Your task to perform on an android device: turn off improve location accuracy Image 0: 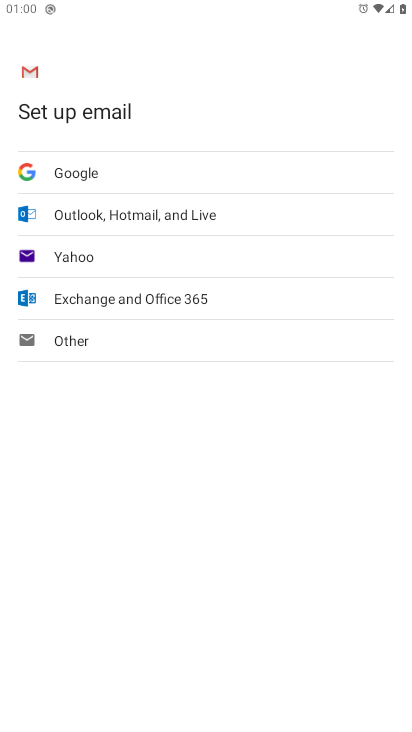
Step 0: press home button
Your task to perform on an android device: turn off improve location accuracy Image 1: 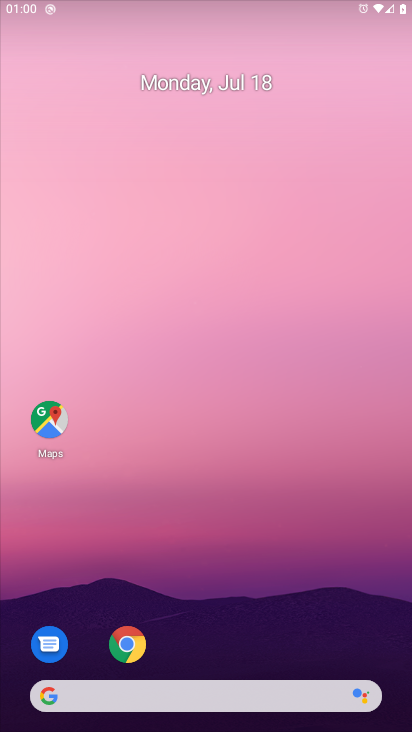
Step 1: drag from (304, 618) to (320, 124)
Your task to perform on an android device: turn off improve location accuracy Image 2: 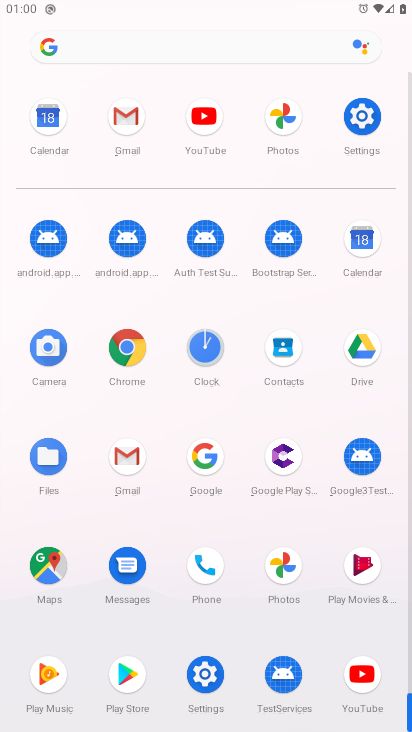
Step 2: click (347, 112)
Your task to perform on an android device: turn off improve location accuracy Image 3: 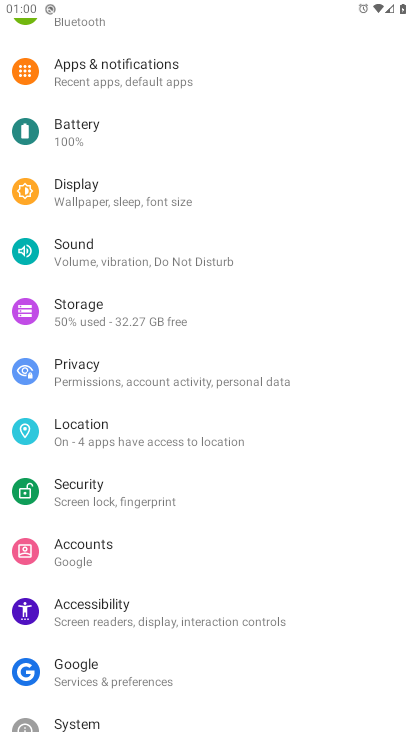
Step 3: click (152, 446)
Your task to perform on an android device: turn off improve location accuracy Image 4: 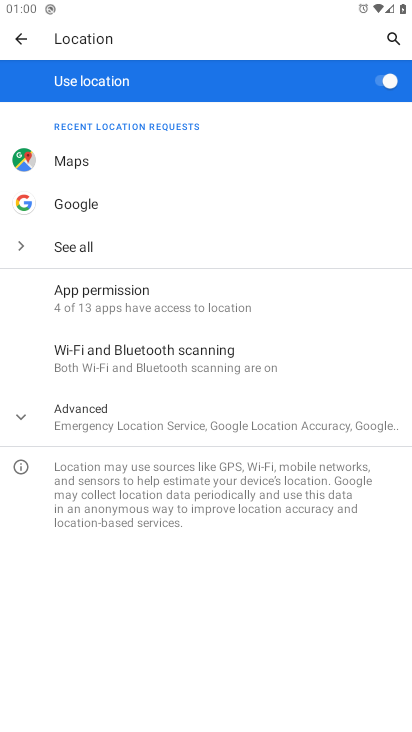
Step 4: click (15, 410)
Your task to perform on an android device: turn off improve location accuracy Image 5: 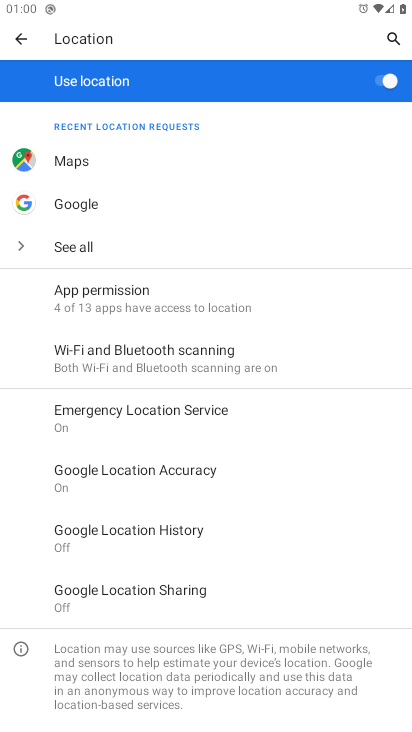
Step 5: click (204, 466)
Your task to perform on an android device: turn off improve location accuracy Image 6: 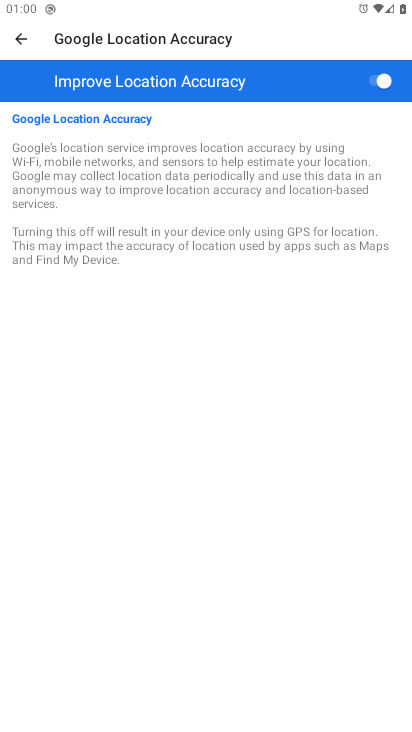
Step 6: click (383, 77)
Your task to perform on an android device: turn off improve location accuracy Image 7: 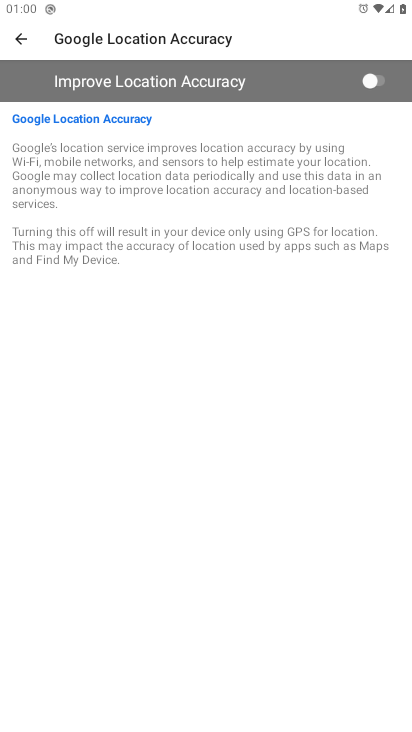
Step 7: task complete